Your task to perform on an android device: open app "Nova Launcher" Image 0: 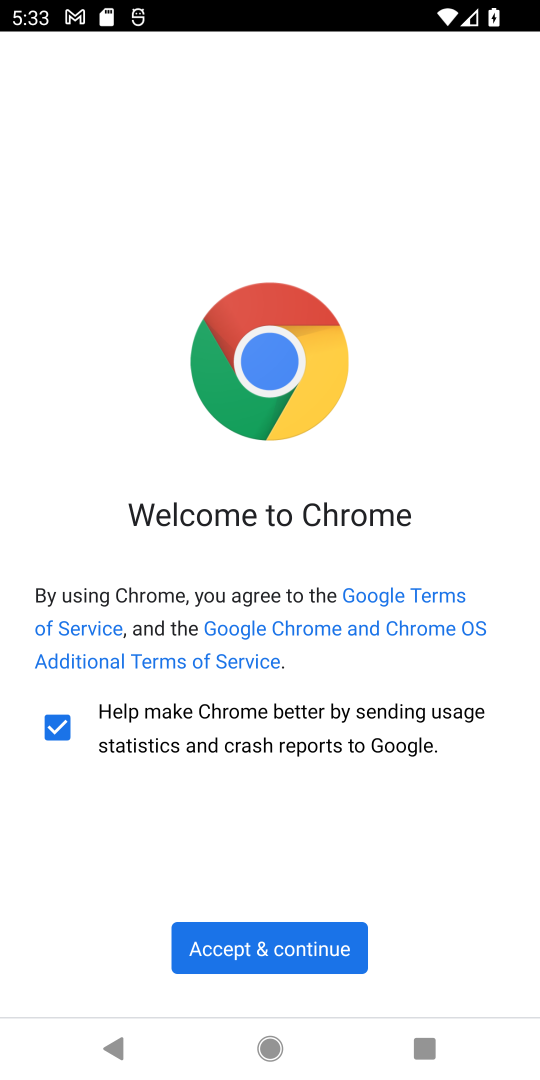
Step 0: press back button
Your task to perform on an android device: open app "Nova Launcher" Image 1: 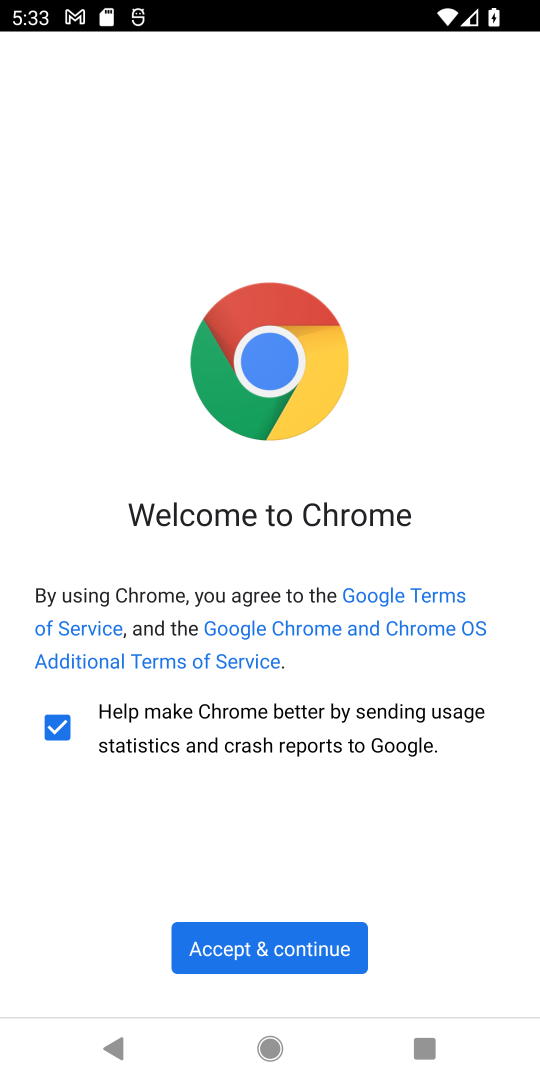
Step 1: press back button
Your task to perform on an android device: open app "Nova Launcher" Image 2: 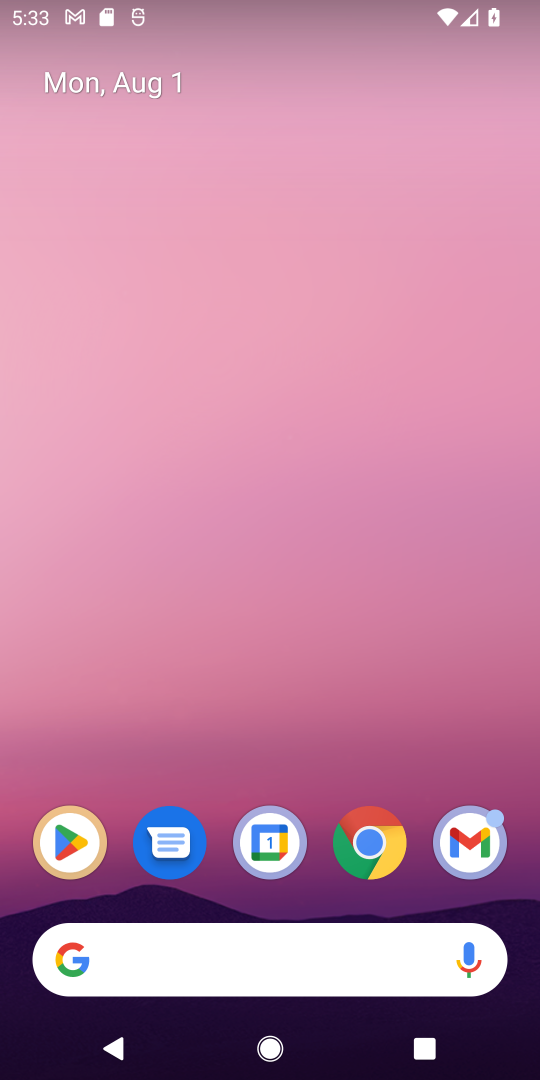
Step 2: drag from (331, 1000) to (413, 384)
Your task to perform on an android device: open app "Nova Launcher" Image 3: 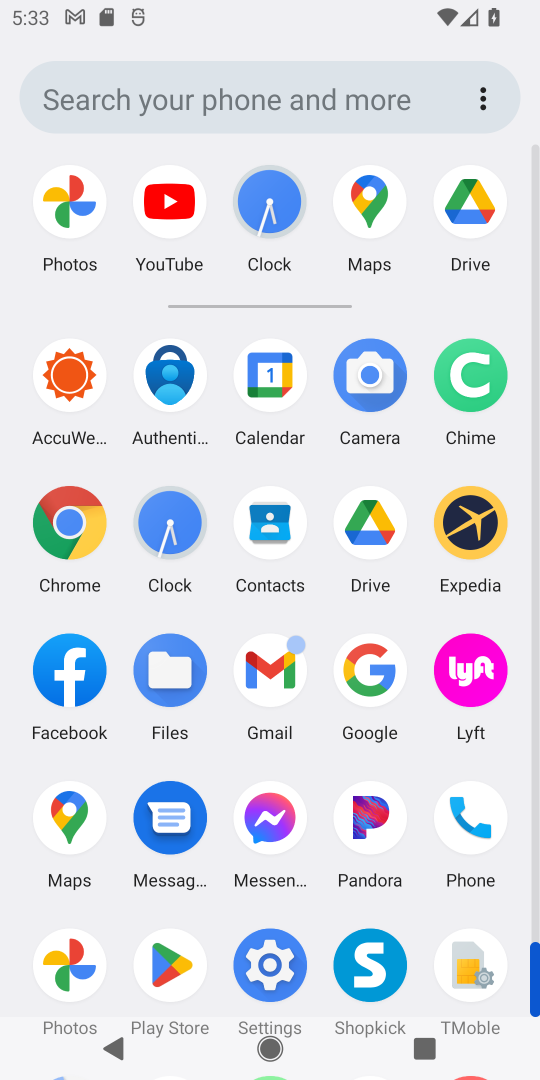
Step 3: click (170, 964)
Your task to perform on an android device: open app "Nova Launcher" Image 4: 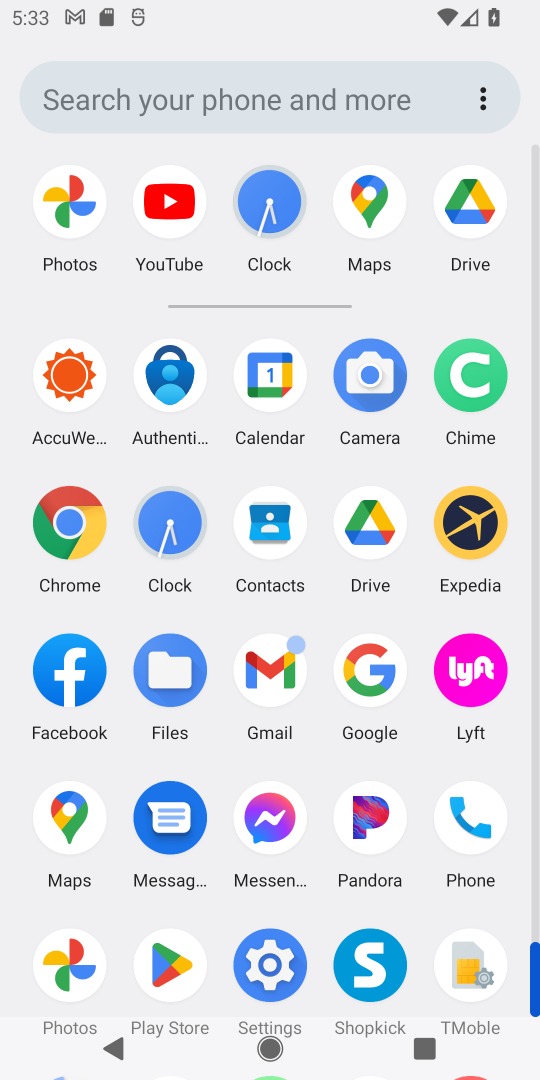
Step 4: click (170, 964)
Your task to perform on an android device: open app "Nova Launcher" Image 5: 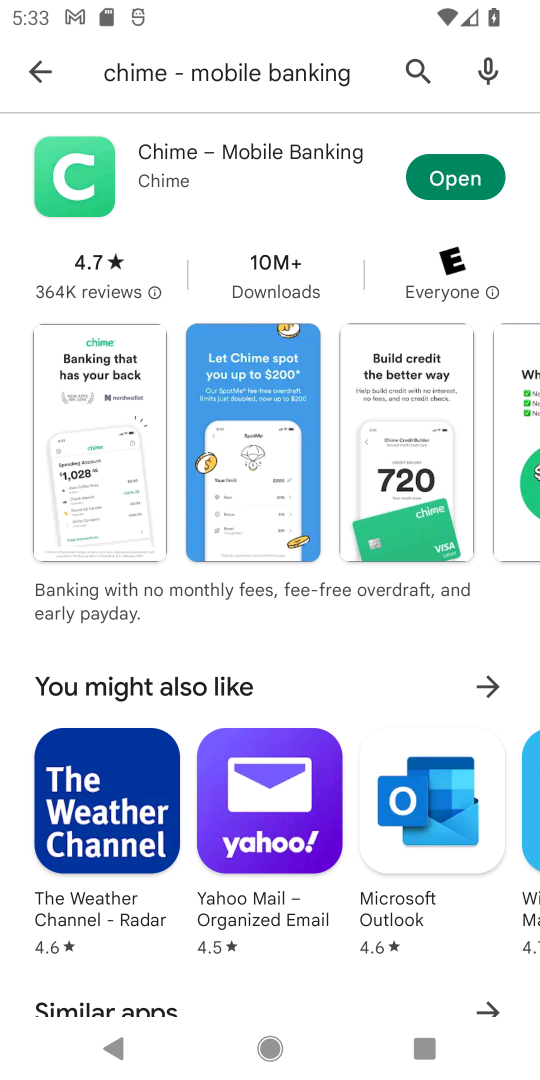
Step 5: click (55, 74)
Your task to perform on an android device: open app "Nova Launcher" Image 6: 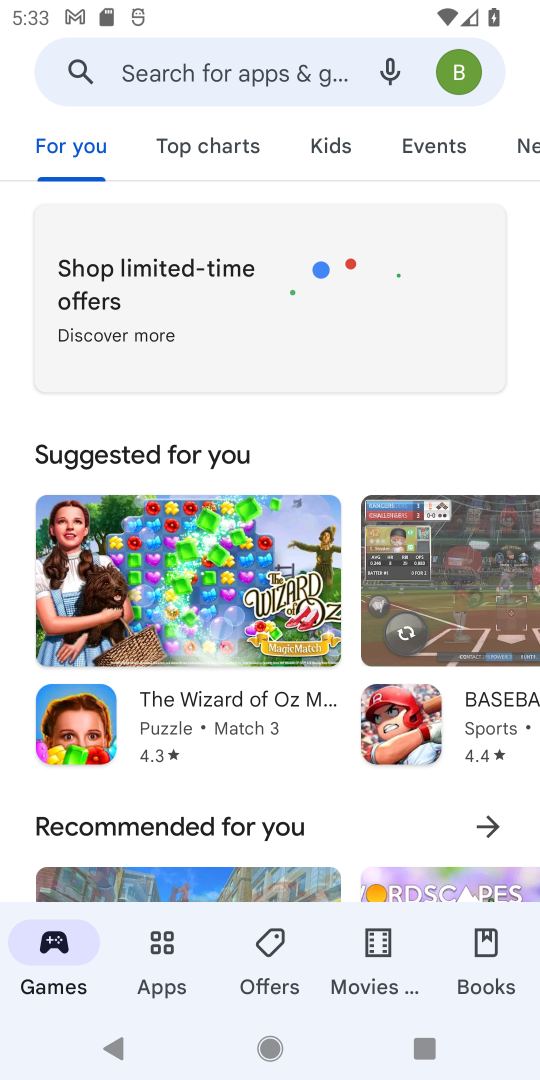
Step 6: click (143, 91)
Your task to perform on an android device: open app "Nova Launcher" Image 7: 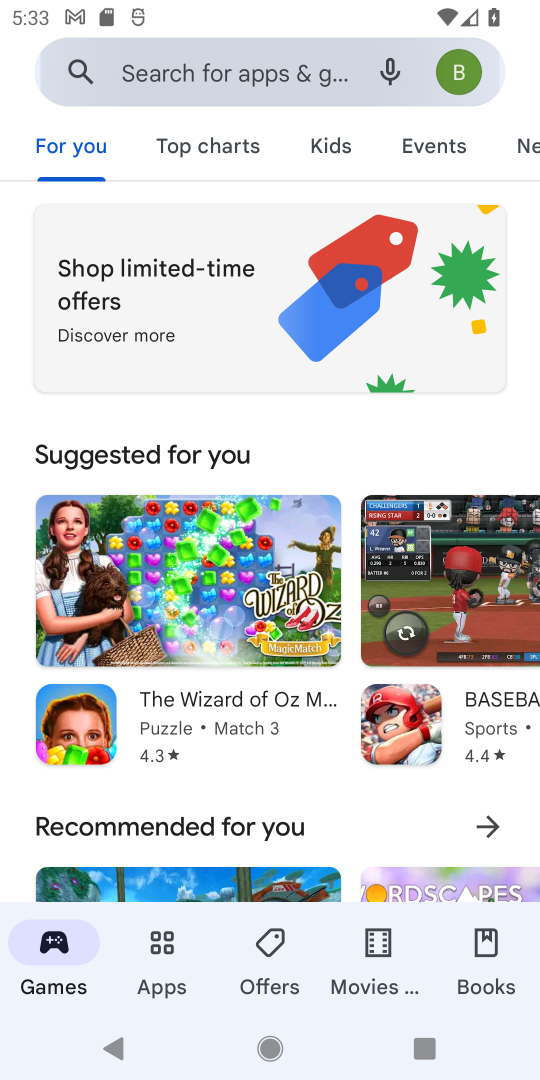
Step 7: click (153, 76)
Your task to perform on an android device: open app "Nova Launcher" Image 8: 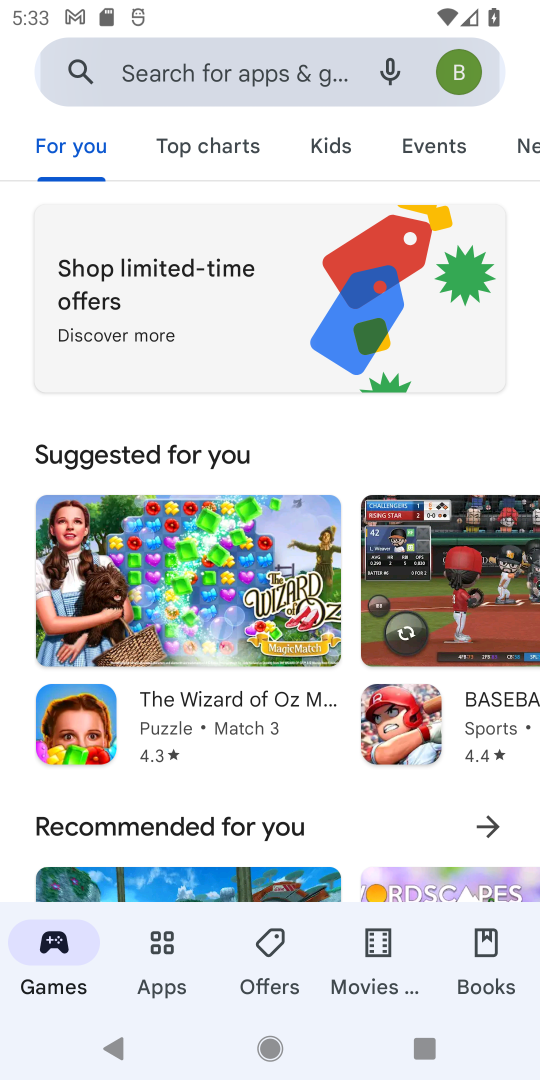
Step 8: click (153, 76)
Your task to perform on an android device: open app "Nova Launcher" Image 9: 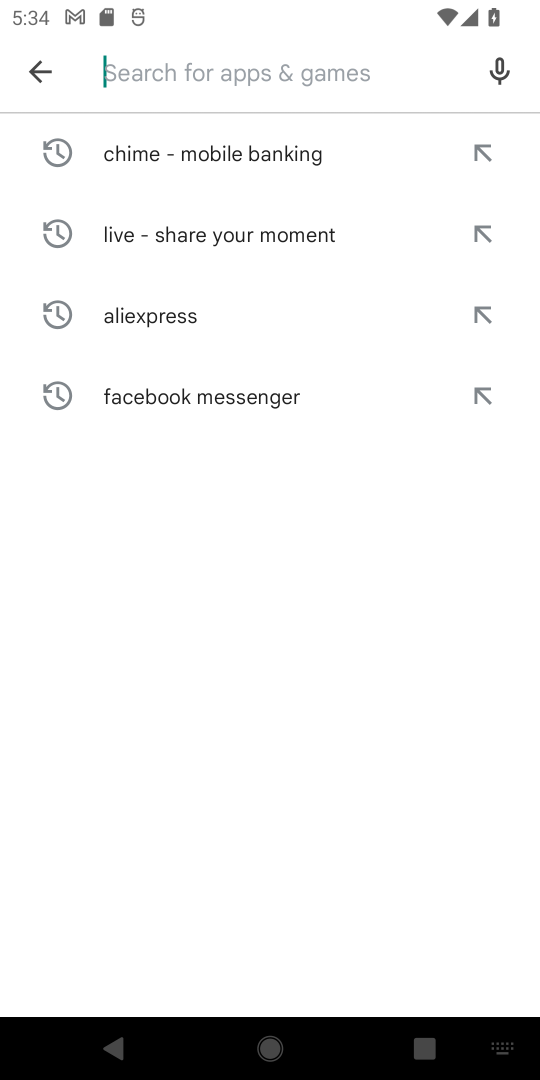
Step 9: type "Nova Launcher"
Your task to perform on an android device: open app "Nova Launcher" Image 10: 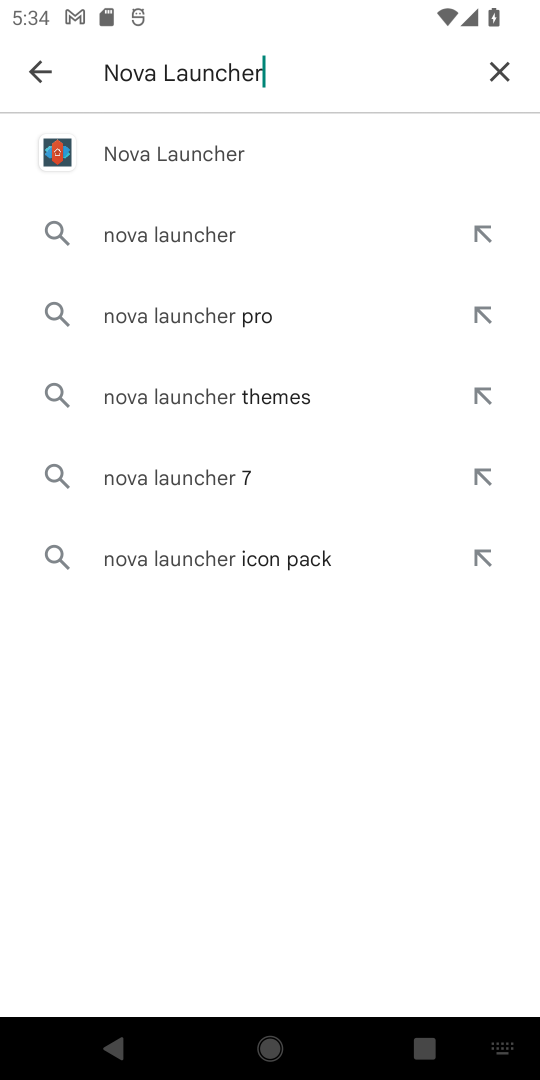
Step 10: click (149, 136)
Your task to perform on an android device: open app "Nova Launcher" Image 11: 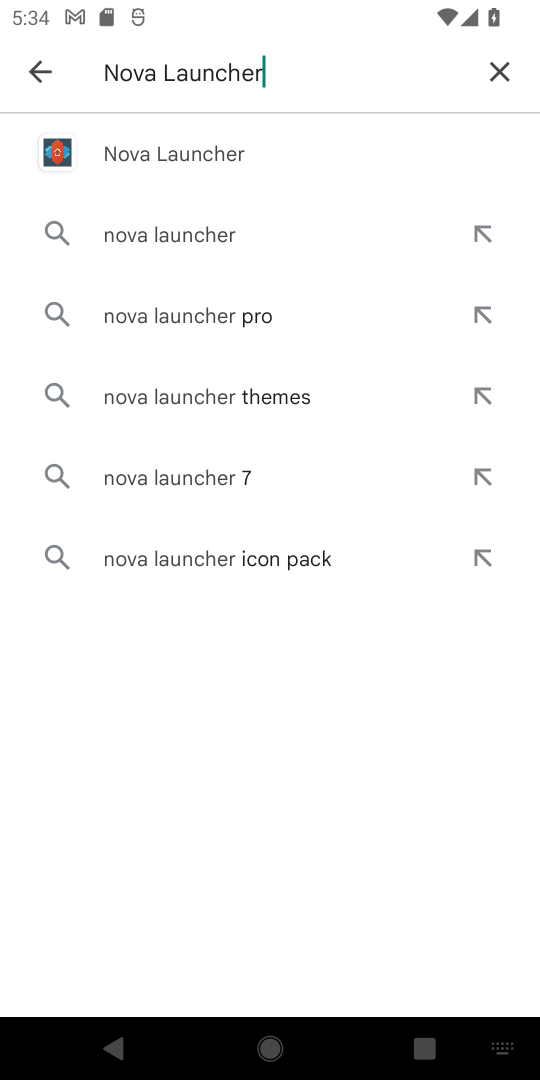
Step 11: click (147, 145)
Your task to perform on an android device: open app "Nova Launcher" Image 12: 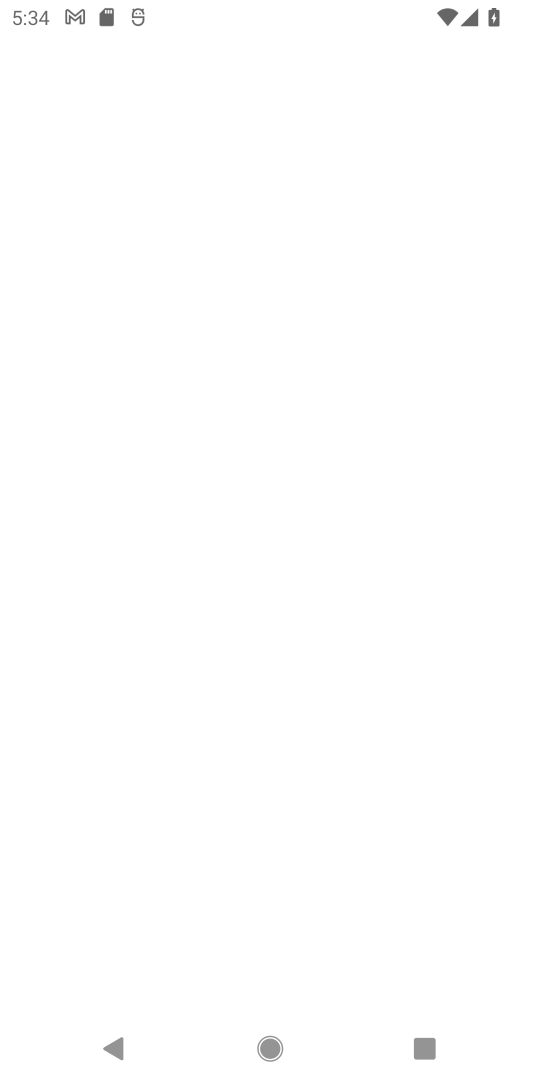
Step 12: click (147, 145)
Your task to perform on an android device: open app "Nova Launcher" Image 13: 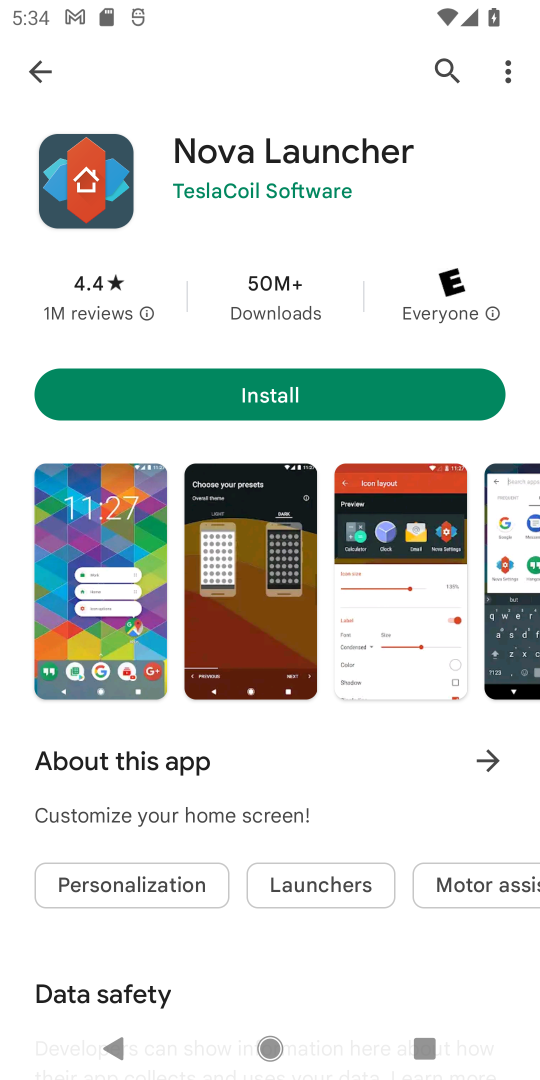
Step 13: click (291, 394)
Your task to perform on an android device: open app "Nova Launcher" Image 14: 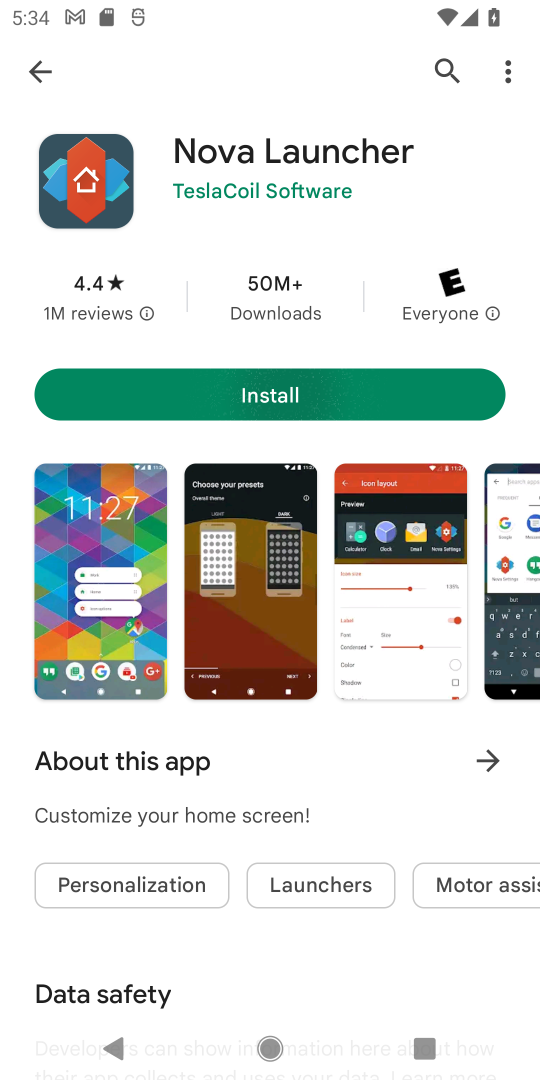
Step 14: click (291, 394)
Your task to perform on an android device: open app "Nova Launcher" Image 15: 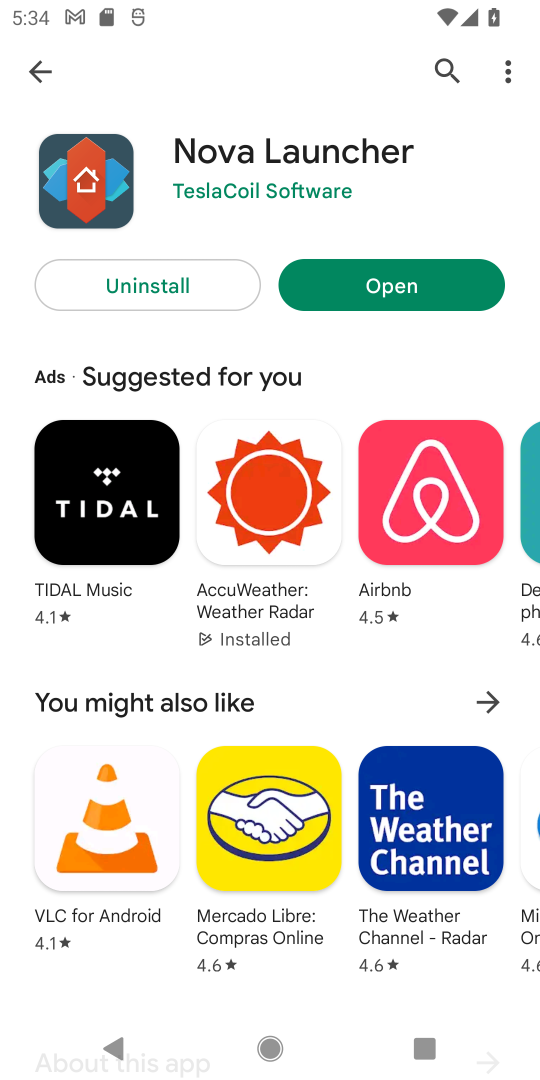
Step 15: click (409, 290)
Your task to perform on an android device: open app "Nova Launcher" Image 16: 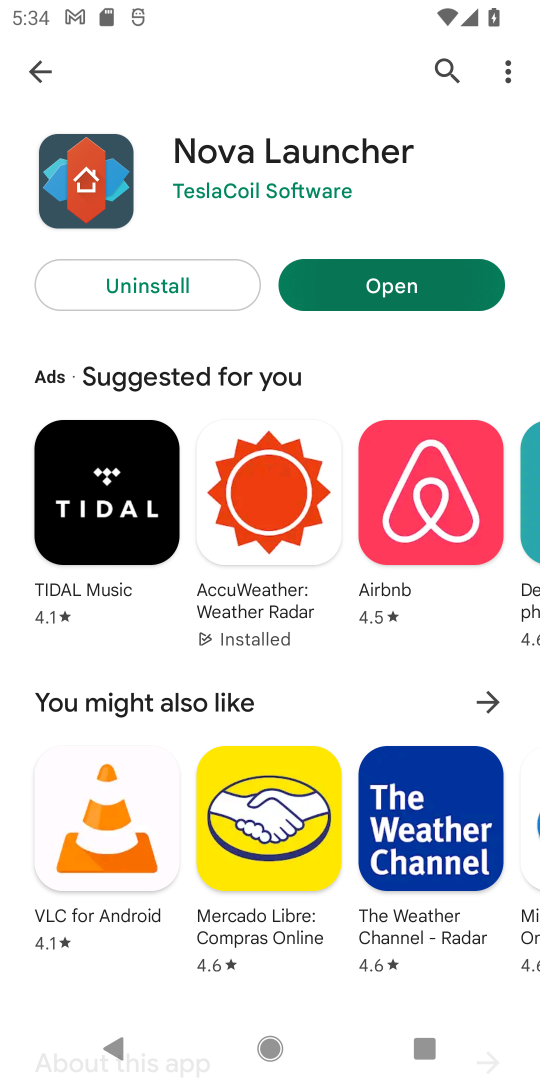
Step 16: click (409, 292)
Your task to perform on an android device: open app "Nova Launcher" Image 17: 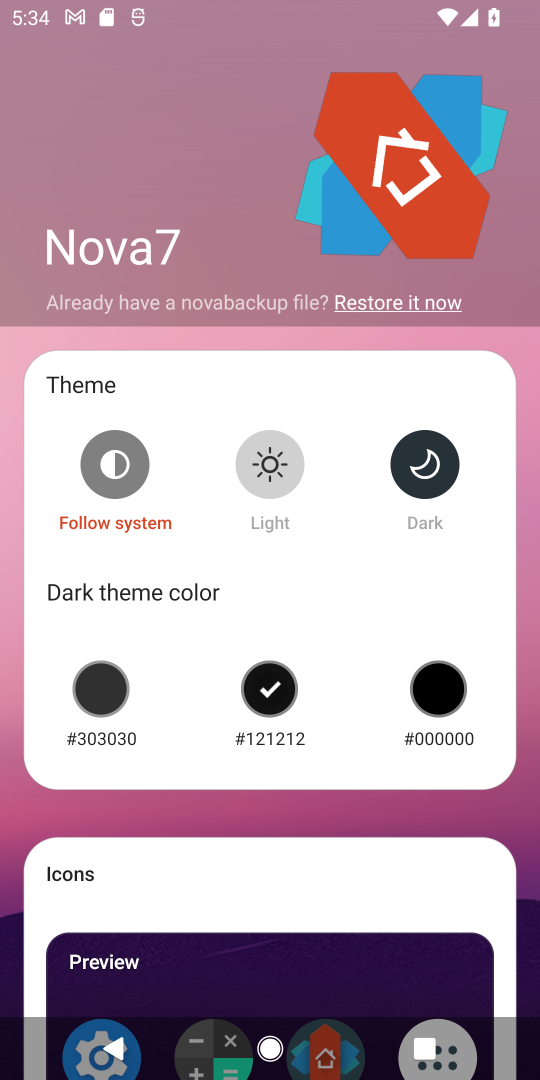
Step 17: task complete